Your task to perform on an android device: Search for sushi restaurants on Maps Image 0: 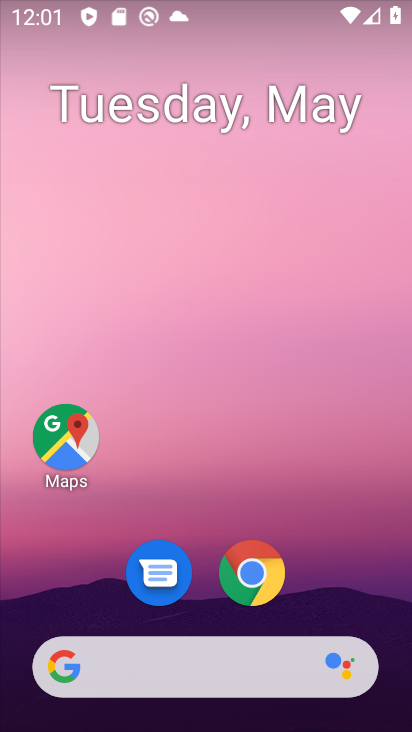
Step 0: drag from (363, 463) to (288, 125)
Your task to perform on an android device: Search for sushi restaurants on Maps Image 1: 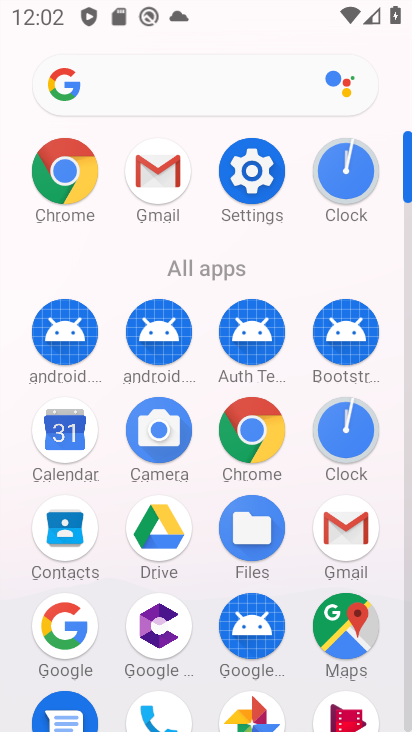
Step 1: click (360, 662)
Your task to perform on an android device: Search for sushi restaurants on Maps Image 2: 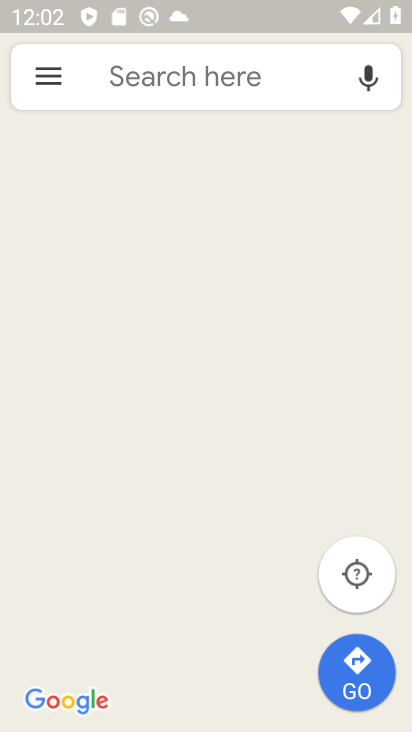
Step 2: click (198, 53)
Your task to perform on an android device: Search for sushi restaurants on Maps Image 3: 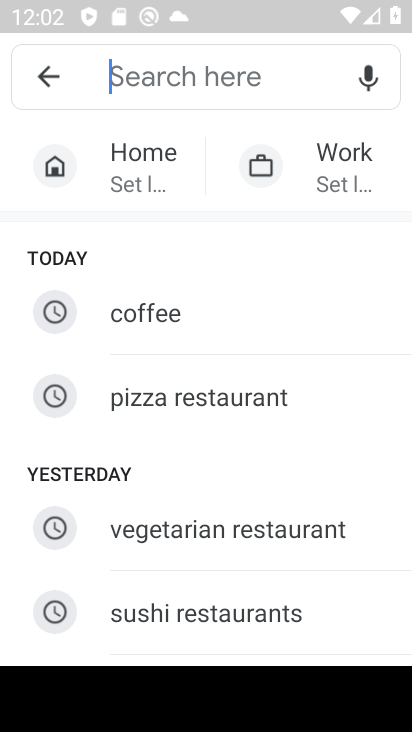
Step 3: type "sushi resturents"
Your task to perform on an android device: Search for sushi restaurants on Maps Image 4: 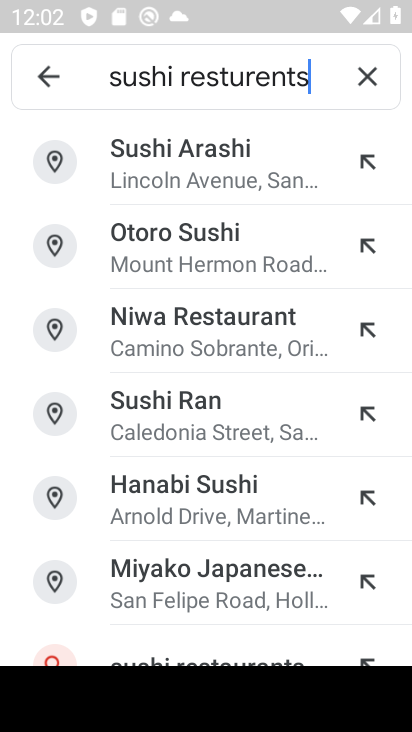
Step 4: press enter
Your task to perform on an android device: Search for sushi restaurants on Maps Image 5: 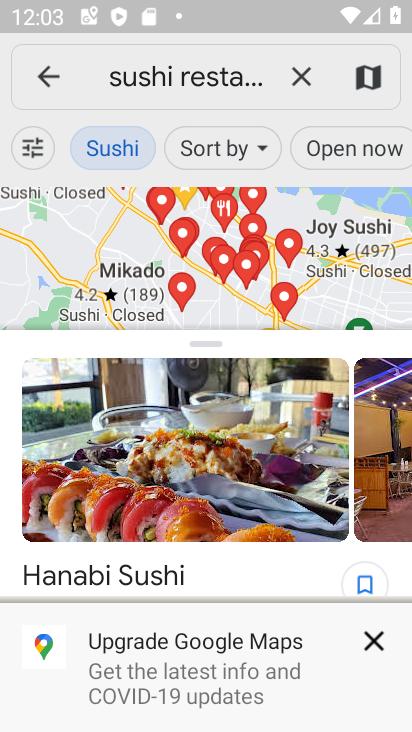
Step 5: task complete